Your task to perform on an android device: turn off priority inbox in the gmail app Image 0: 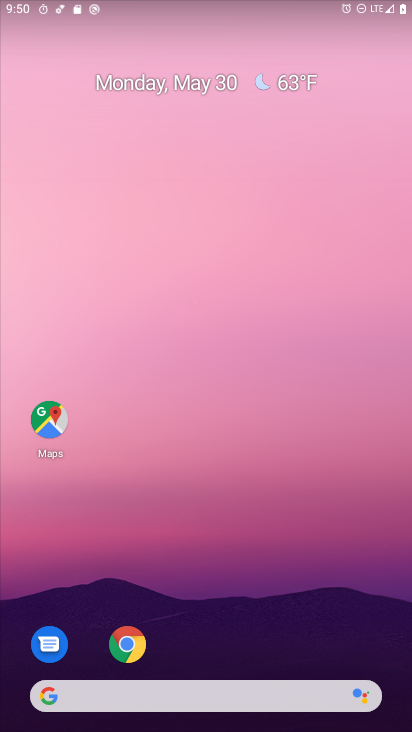
Step 0: drag from (241, 627) to (91, 87)
Your task to perform on an android device: turn off priority inbox in the gmail app Image 1: 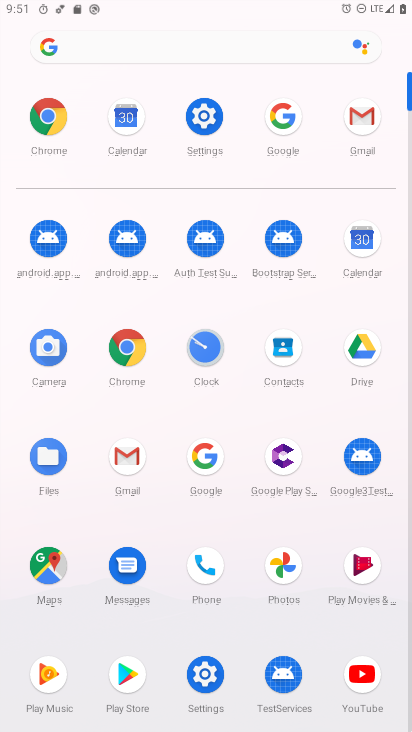
Step 1: click (363, 112)
Your task to perform on an android device: turn off priority inbox in the gmail app Image 2: 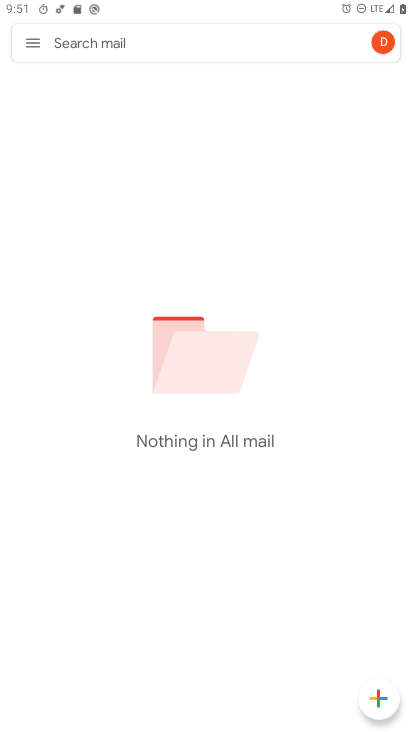
Step 2: click (29, 44)
Your task to perform on an android device: turn off priority inbox in the gmail app Image 3: 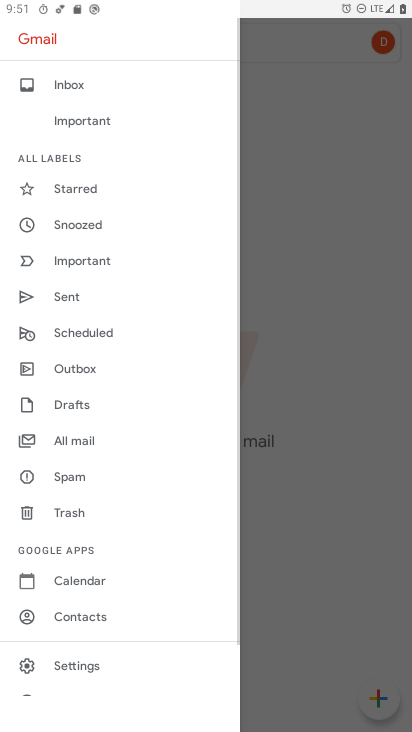
Step 3: click (78, 664)
Your task to perform on an android device: turn off priority inbox in the gmail app Image 4: 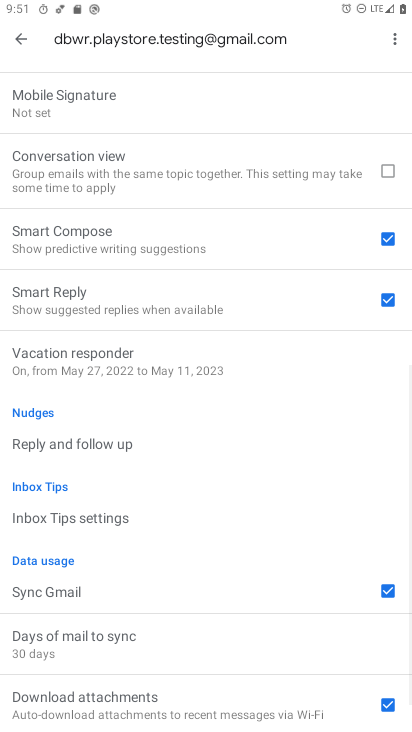
Step 4: drag from (146, 98) to (100, 320)
Your task to perform on an android device: turn off priority inbox in the gmail app Image 5: 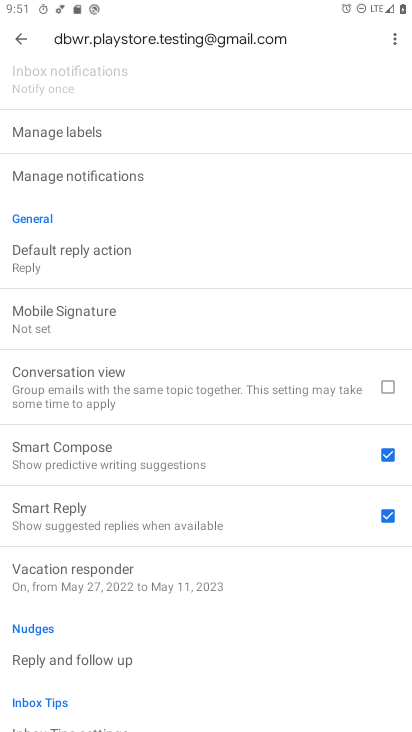
Step 5: drag from (86, 128) to (135, 528)
Your task to perform on an android device: turn off priority inbox in the gmail app Image 6: 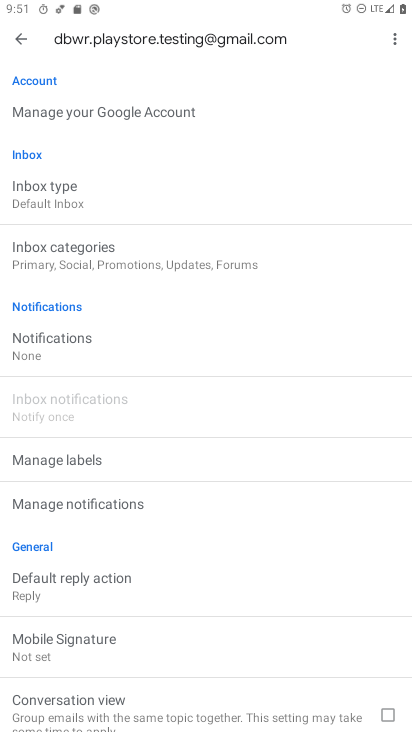
Step 6: click (34, 201)
Your task to perform on an android device: turn off priority inbox in the gmail app Image 7: 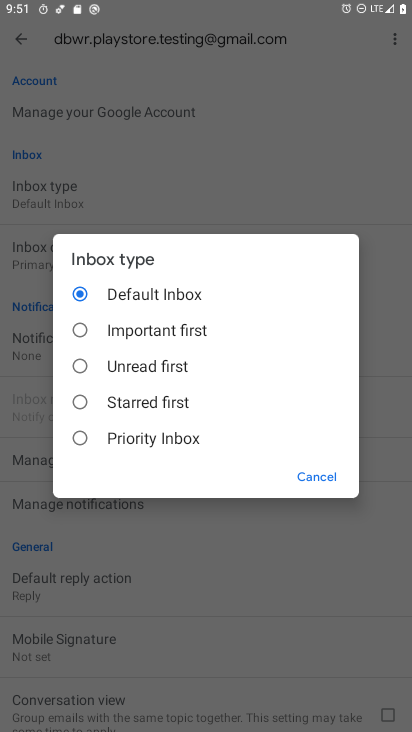
Step 7: drag from (79, 436) to (157, 100)
Your task to perform on an android device: turn off priority inbox in the gmail app Image 8: 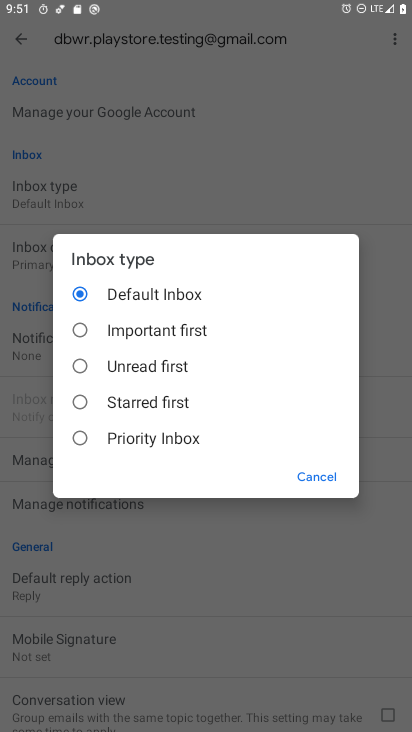
Step 8: click (360, 143)
Your task to perform on an android device: turn off priority inbox in the gmail app Image 9: 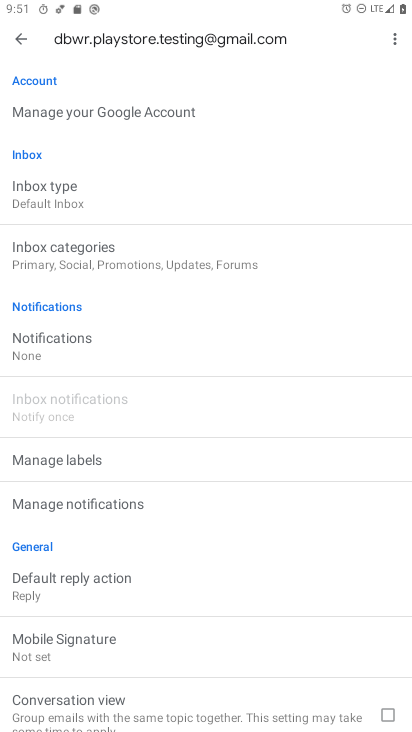
Step 9: task complete